Your task to perform on an android device: Search for sushi restaurants on Maps Image 0: 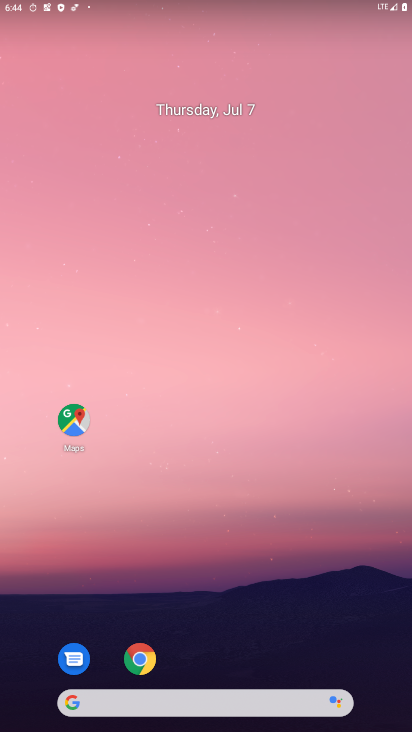
Step 0: drag from (378, 681) to (281, 44)
Your task to perform on an android device: Search for sushi restaurants on Maps Image 1: 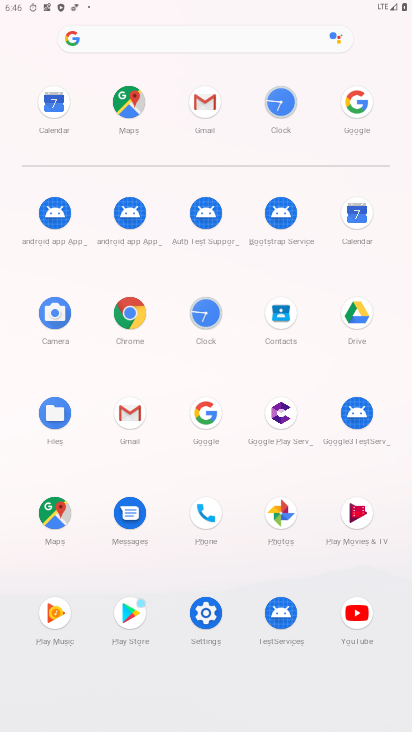
Step 1: click (40, 524)
Your task to perform on an android device: Search for sushi restaurants on Maps Image 2: 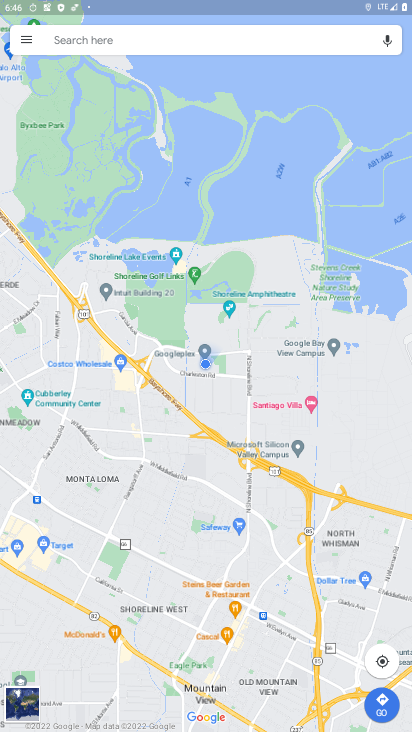
Step 2: click (158, 36)
Your task to perform on an android device: Search for sushi restaurants on Maps Image 3: 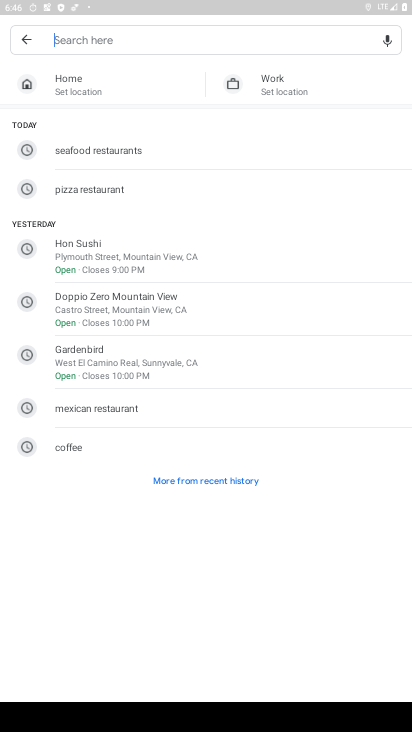
Step 3: type "sushi restaurants "
Your task to perform on an android device: Search for sushi restaurants on Maps Image 4: 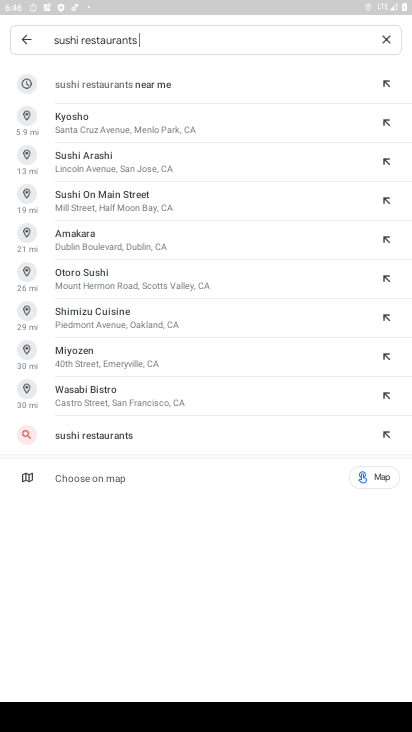
Step 4: click (113, 439)
Your task to perform on an android device: Search for sushi restaurants on Maps Image 5: 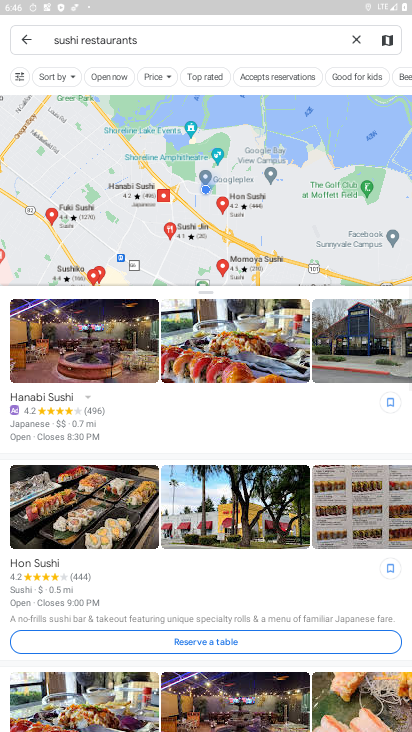
Step 5: task complete